Your task to perform on an android device: change notification settings in the gmail app Image 0: 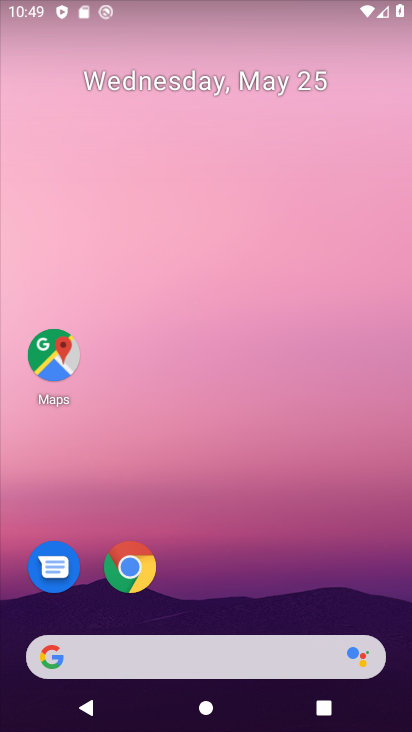
Step 0: drag from (203, 537) to (226, 53)
Your task to perform on an android device: change notification settings in the gmail app Image 1: 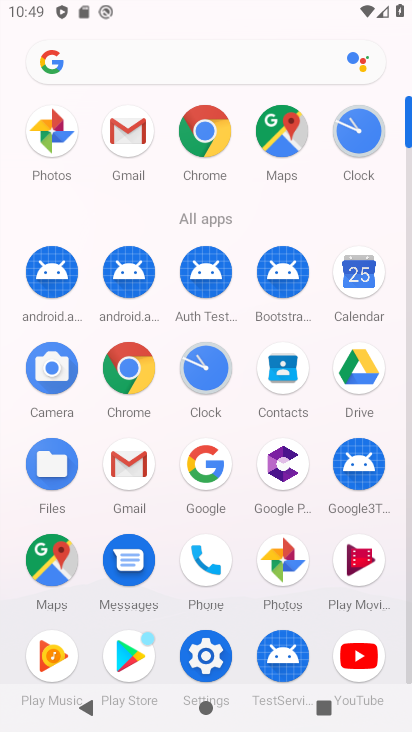
Step 1: click (202, 659)
Your task to perform on an android device: change notification settings in the gmail app Image 2: 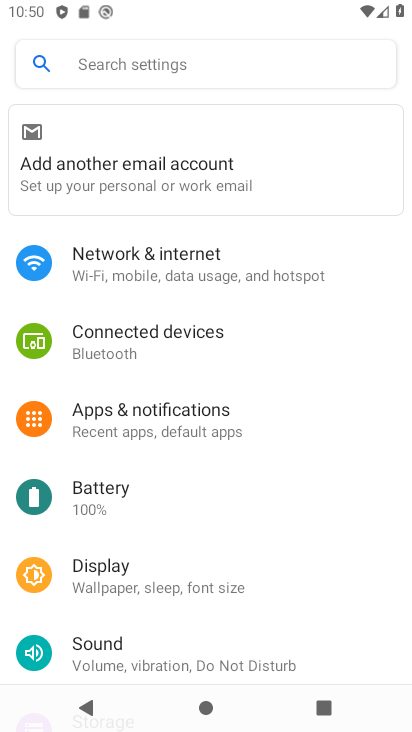
Step 2: click (181, 427)
Your task to perform on an android device: change notification settings in the gmail app Image 3: 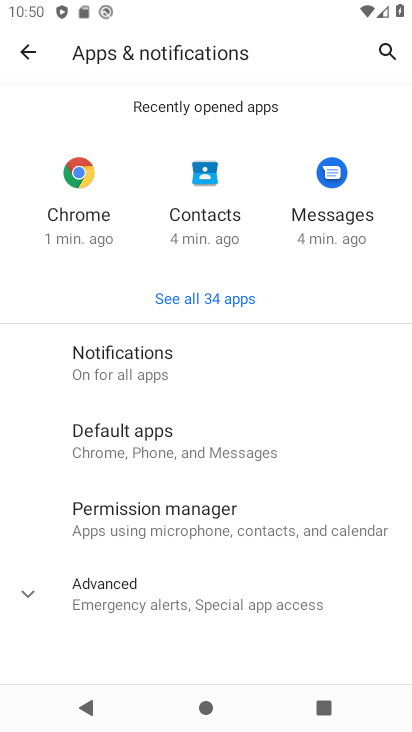
Step 3: click (172, 359)
Your task to perform on an android device: change notification settings in the gmail app Image 4: 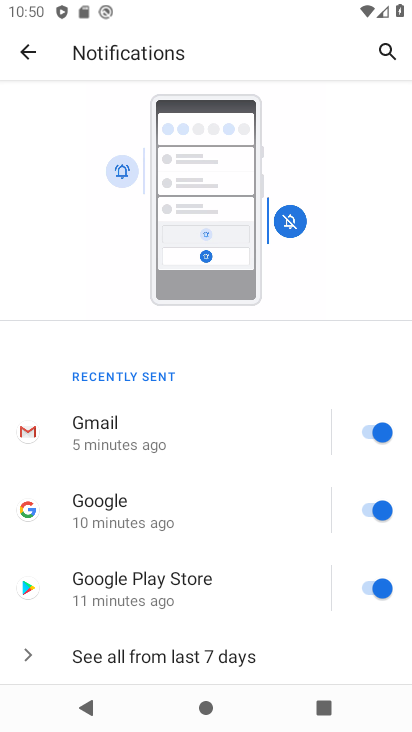
Step 4: drag from (187, 599) to (262, 32)
Your task to perform on an android device: change notification settings in the gmail app Image 5: 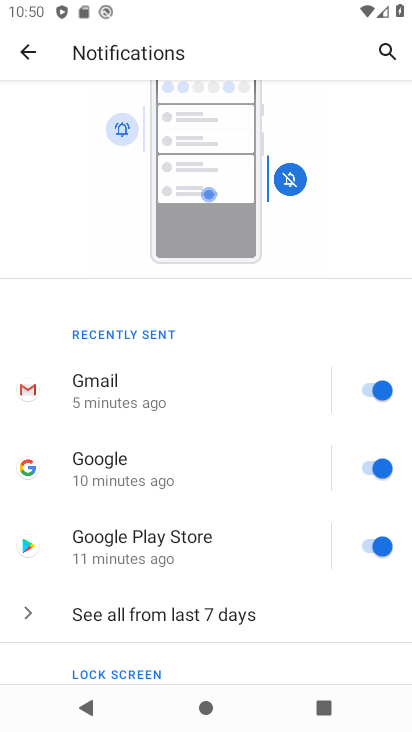
Step 5: drag from (275, 656) to (286, 230)
Your task to perform on an android device: change notification settings in the gmail app Image 6: 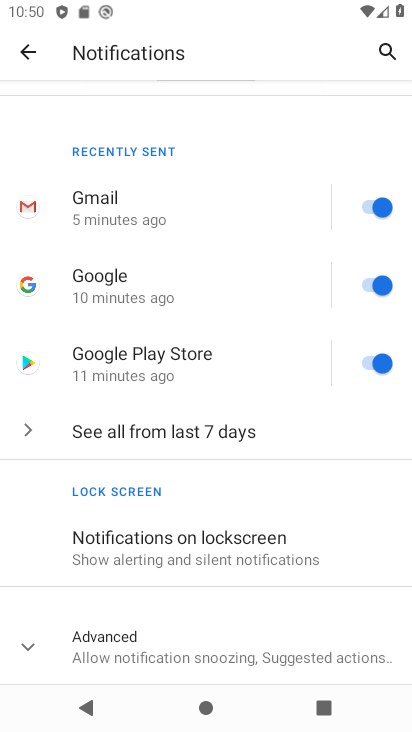
Step 6: click (384, 361)
Your task to perform on an android device: change notification settings in the gmail app Image 7: 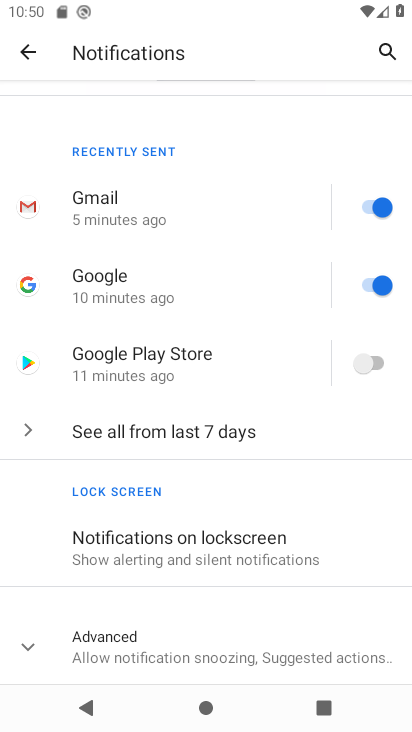
Step 7: click (381, 278)
Your task to perform on an android device: change notification settings in the gmail app Image 8: 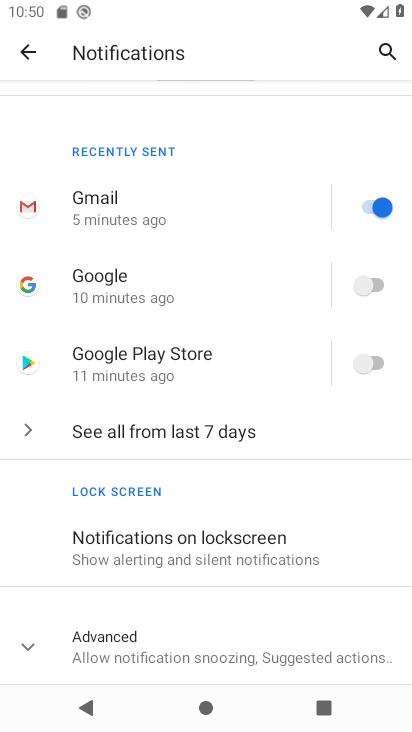
Step 8: click (380, 201)
Your task to perform on an android device: change notification settings in the gmail app Image 9: 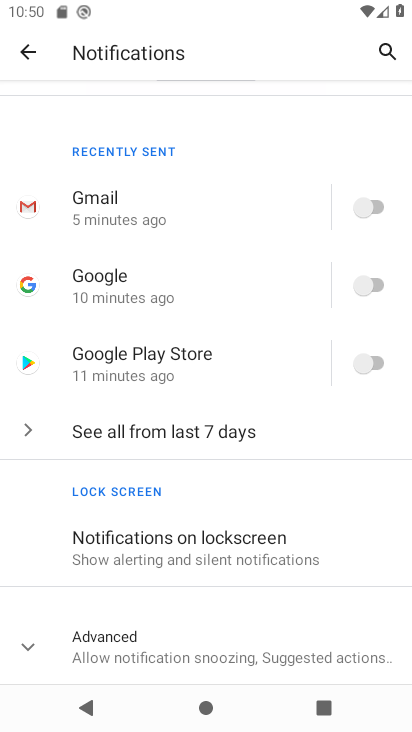
Step 9: task complete